Your task to perform on an android device: search for starred emails in the gmail app Image 0: 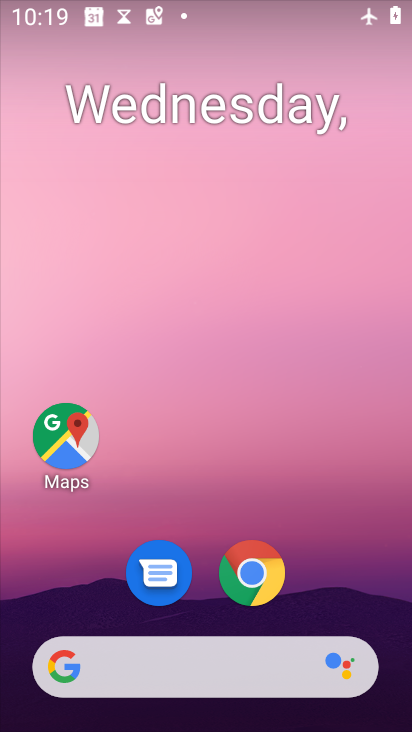
Step 0: drag from (332, 582) to (328, 332)
Your task to perform on an android device: search for starred emails in the gmail app Image 1: 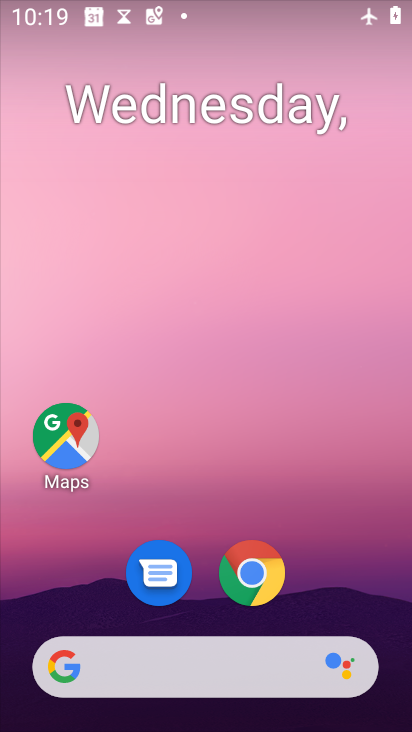
Step 1: drag from (314, 573) to (339, 288)
Your task to perform on an android device: search for starred emails in the gmail app Image 2: 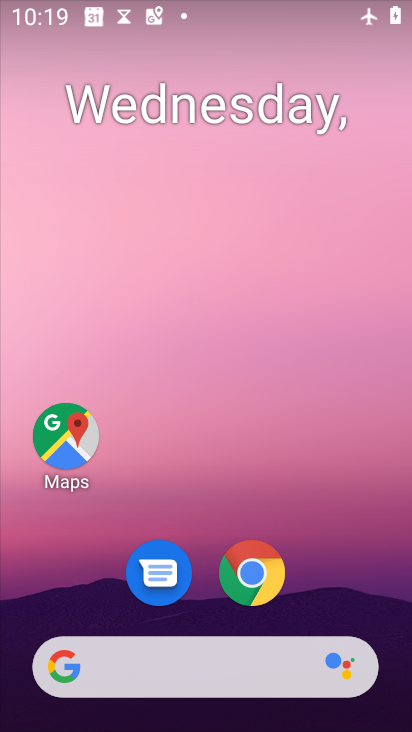
Step 2: drag from (356, 452) to (370, 268)
Your task to perform on an android device: search for starred emails in the gmail app Image 3: 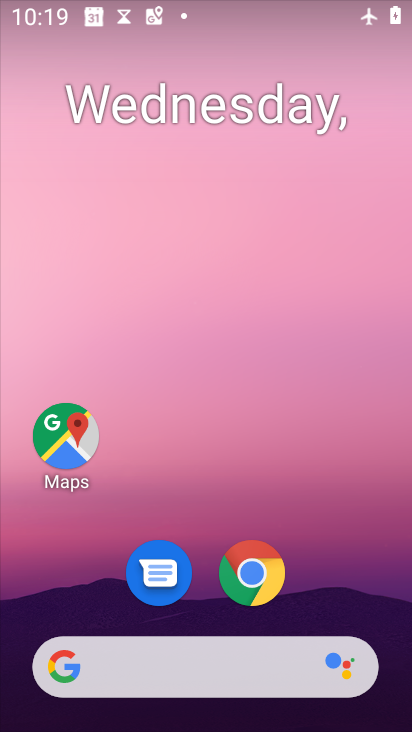
Step 3: drag from (301, 566) to (346, 261)
Your task to perform on an android device: search for starred emails in the gmail app Image 4: 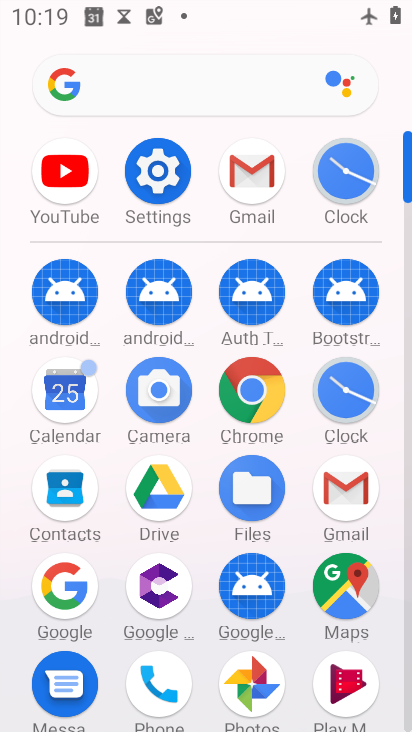
Step 4: click (333, 486)
Your task to perform on an android device: search for starred emails in the gmail app Image 5: 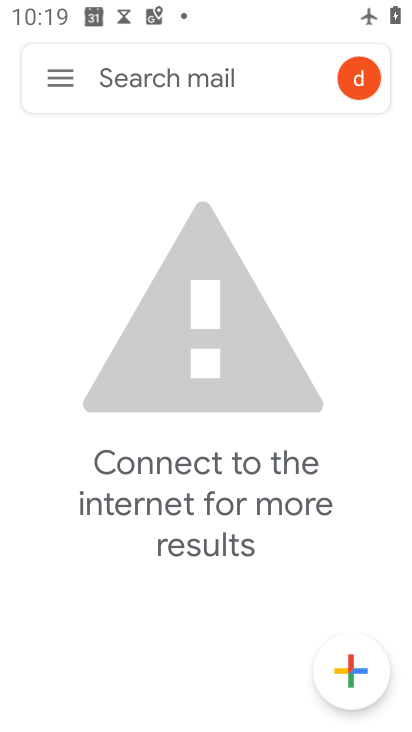
Step 5: click (57, 76)
Your task to perform on an android device: search for starred emails in the gmail app Image 6: 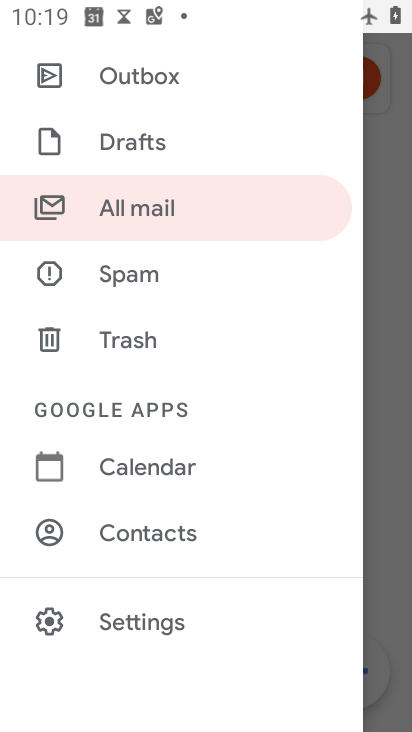
Step 6: drag from (145, 161) to (156, 449)
Your task to perform on an android device: search for starred emails in the gmail app Image 7: 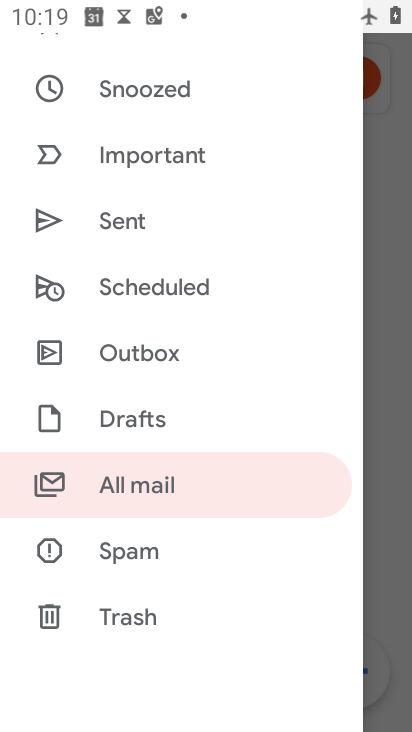
Step 7: drag from (186, 178) to (223, 512)
Your task to perform on an android device: search for starred emails in the gmail app Image 8: 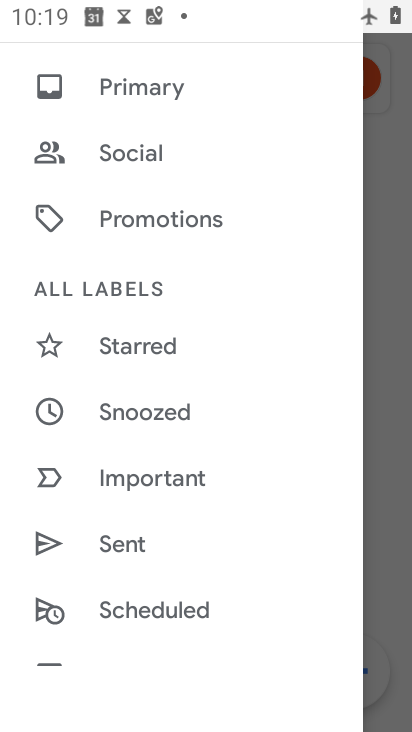
Step 8: click (174, 333)
Your task to perform on an android device: search for starred emails in the gmail app Image 9: 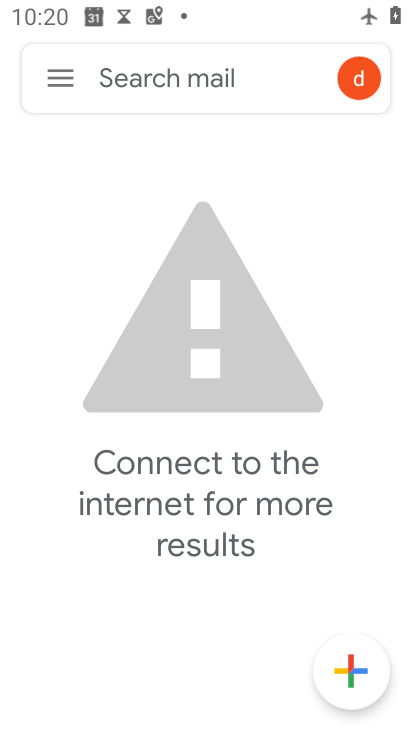
Step 9: click (43, 72)
Your task to perform on an android device: search for starred emails in the gmail app Image 10: 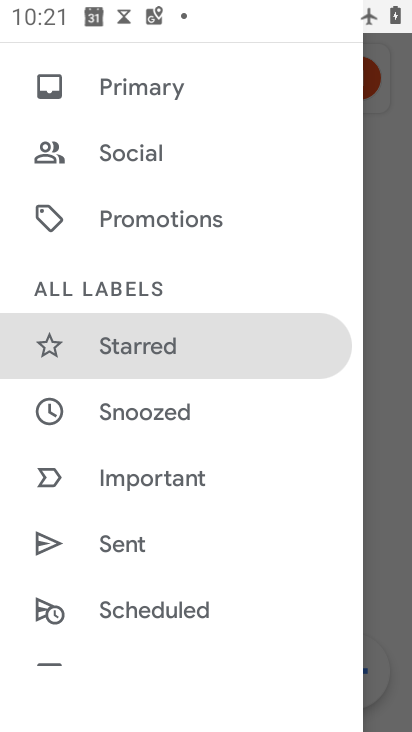
Step 10: task complete